Your task to perform on an android device: turn on sleep mode Image 0: 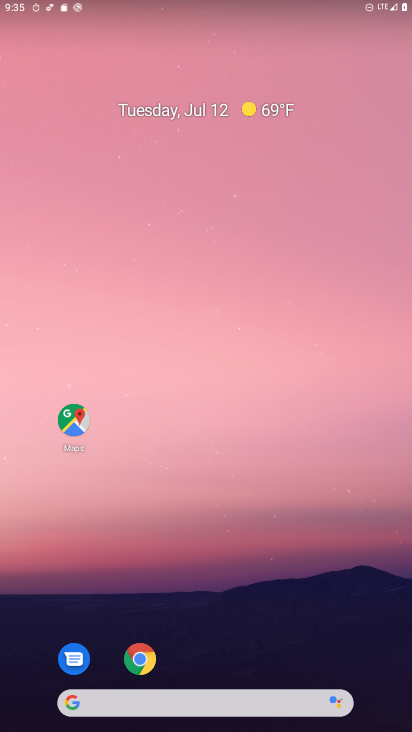
Step 0: drag from (227, 719) to (235, 2)
Your task to perform on an android device: turn on sleep mode Image 1: 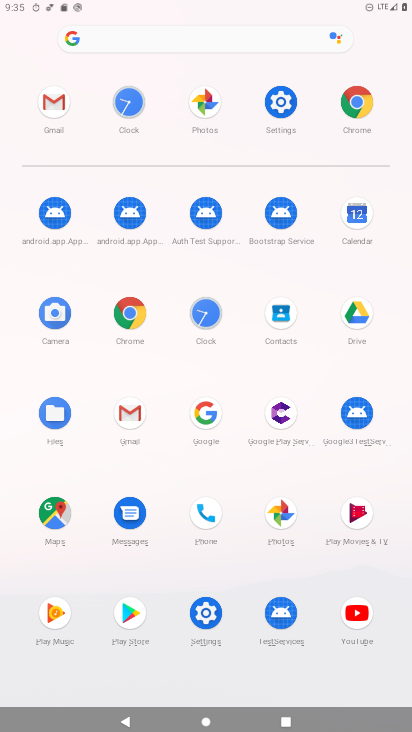
Step 1: click (286, 102)
Your task to perform on an android device: turn on sleep mode Image 2: 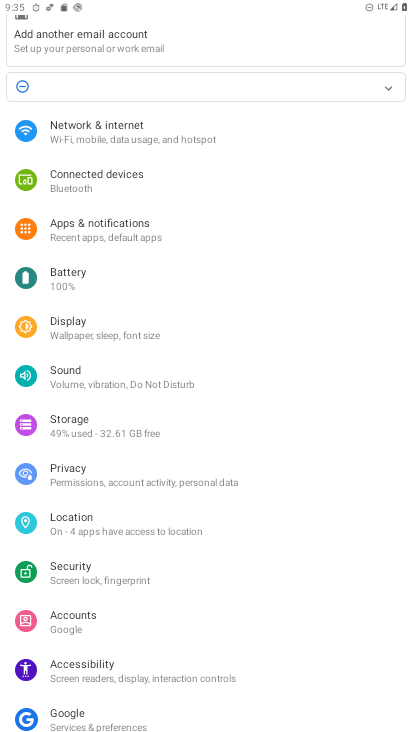
Step 2: click (122, 335)
Your task to perform on an android device: turn on sleep mode Image 3: 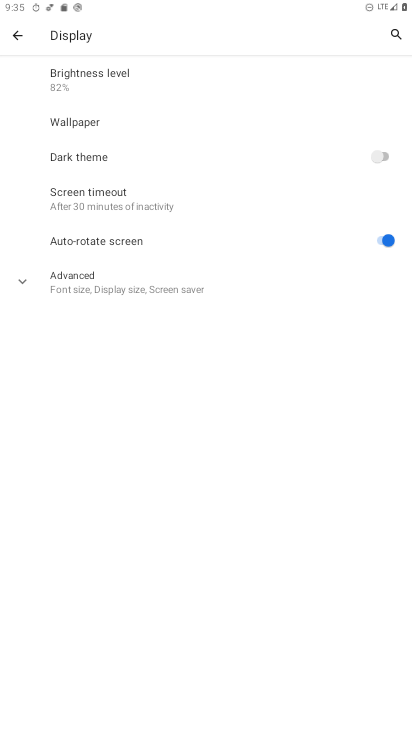
Step 3: task complete